Your task to perform on an android device: find photos in the google photos app Image 0: 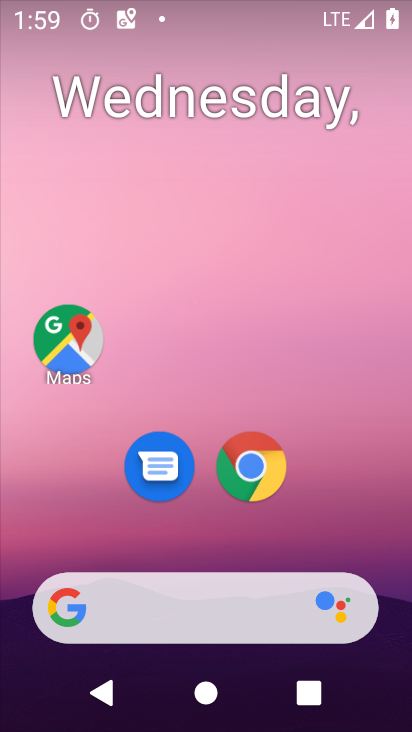
Step 0: drag from (329, 531) to (322, 70)
Your task to perform on an android device: find photos in the google photos app Image 1: 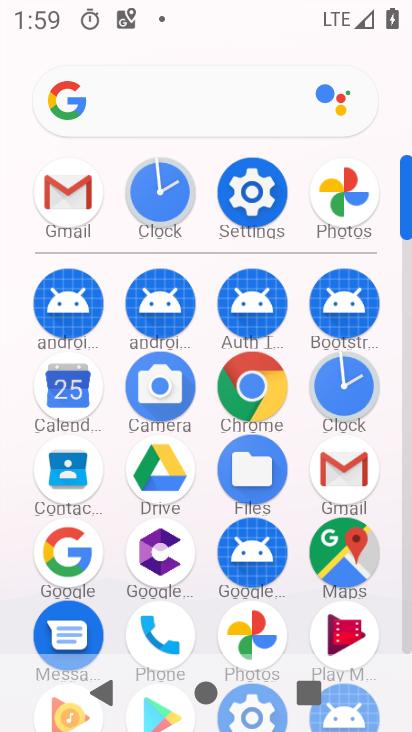
Step 1: click (337, 196)
Your task to perform on an android device: find photos in the google photos app Image 2: 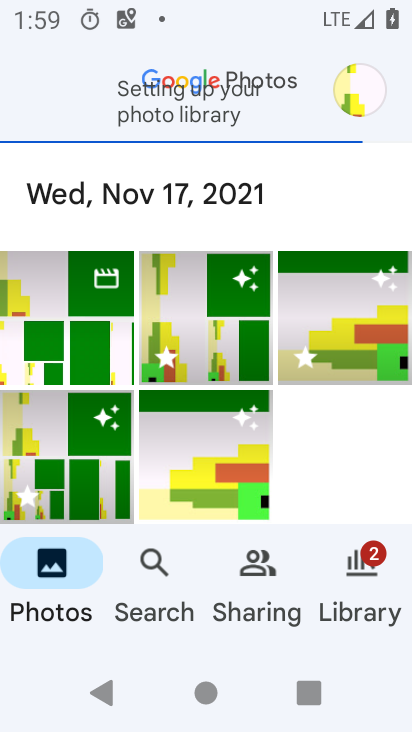
Step 2: task complete